Your task to perform on an android device: Do I have any events tomorrow? Image 0: 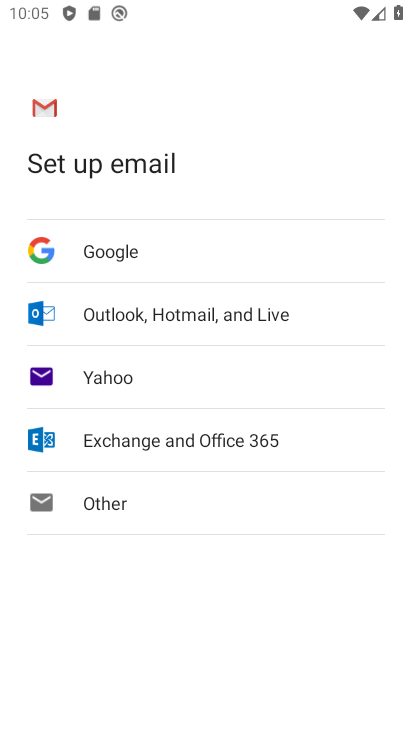
Step 0: press home button
Your task to perform on an android device: Do I have any events tomorrow? Image 1: 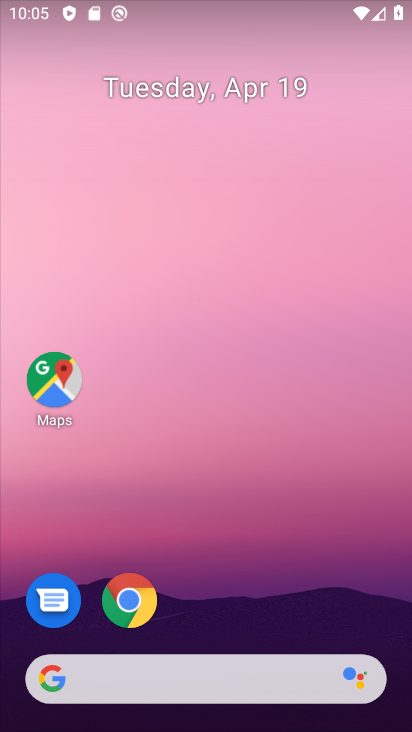
Step 1: drag from (334, 621) to (177, 80)
Your task to perform on an android device: Do I have any events tomorrow? Image 2: 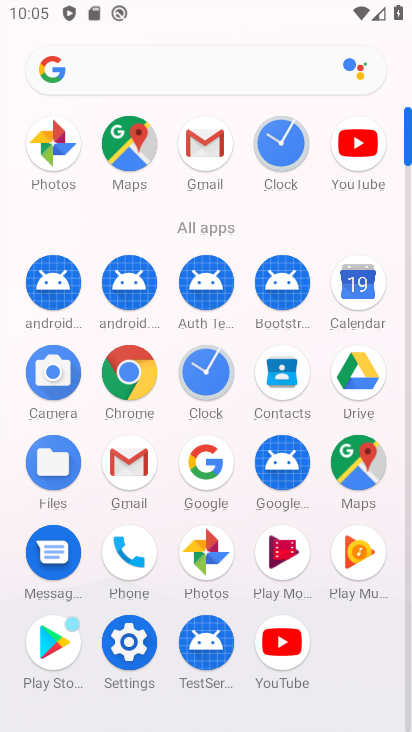
Step 2: click (375, 274)
Your task to perform on an android device: Do I have any events tomorrow? Image 3: 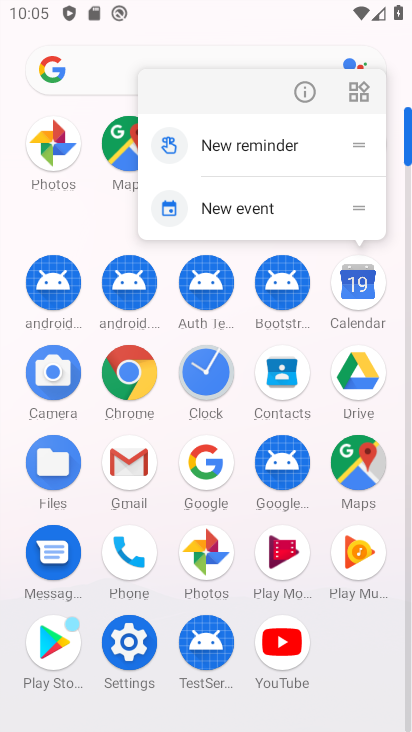
Step 3: click (366, 298)
Your task to perform on an android device: Do I have any events tomorrow? Image 4: 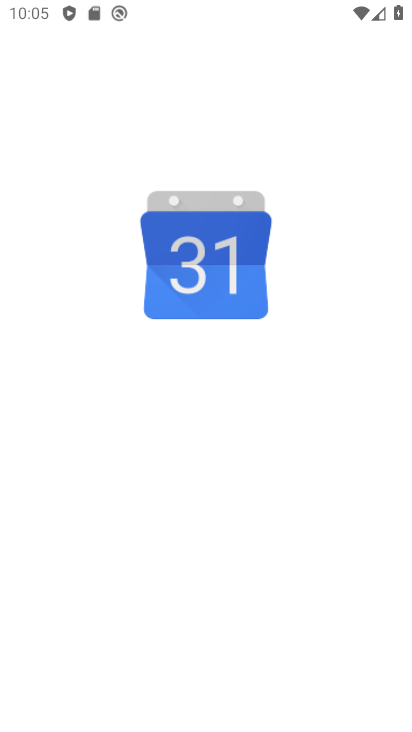
Step 4: click (366, 298)
Your task to perform on an android device: Do I have any events tomorrow? Image 5: 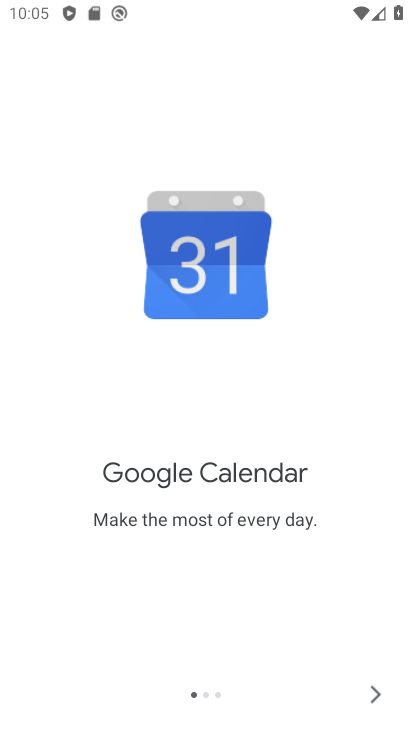
Step 5: click (380, 685)
Your task to perform on an android device: Do I have any events tomorrow? Image 6: 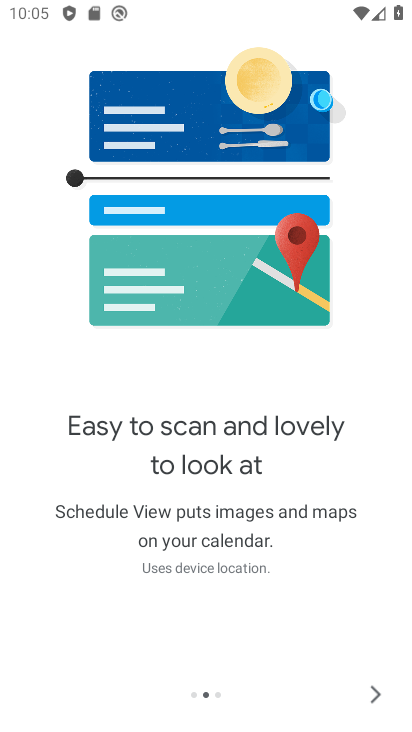
Step 6: click (376, 691)
Your task to perform on an android device: Do I have any events tomorrow? Image 7: 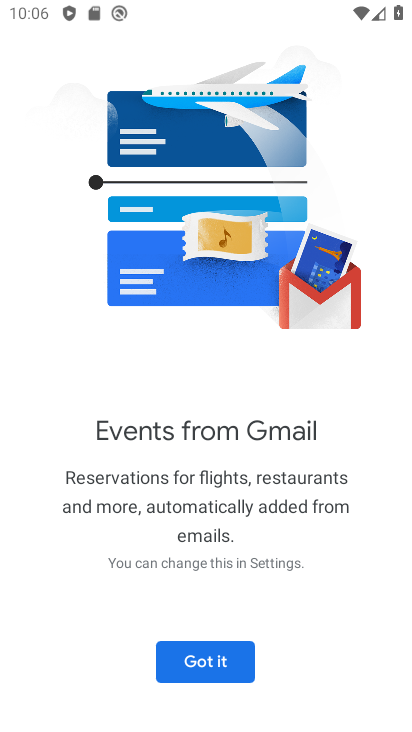
Step 7: click (238, 672)
Your task to perform on an android device: Do I have any events tomorrow? Image 8: 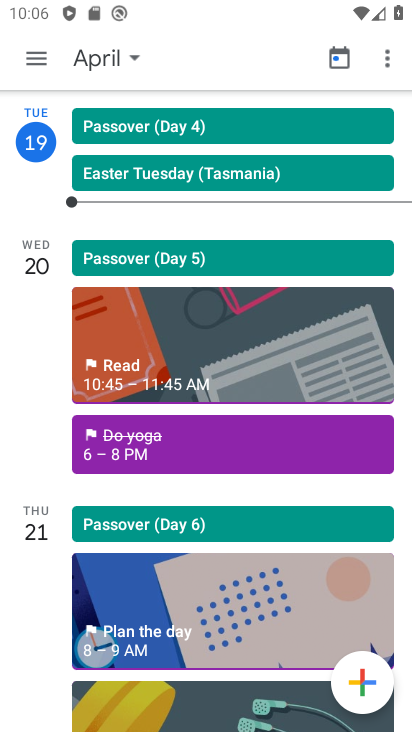
Step 8: click (123, 62)
Your task to perform on an android device: Do I have any events tomorrow? Image 9: 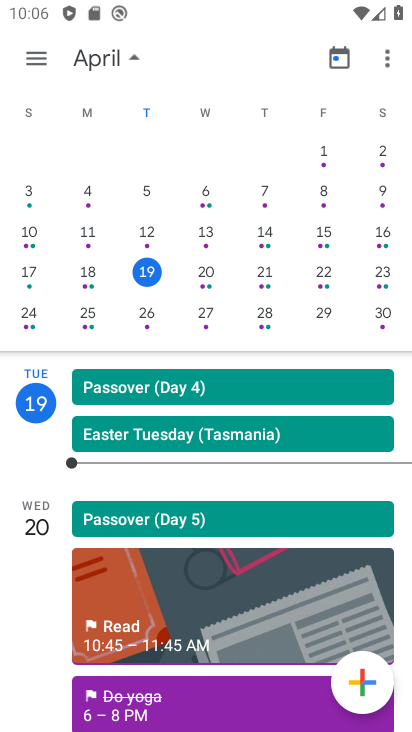
Step 9: click (250, 269)
Your task to perform on an android device: Do I have any events tomorrow? Image 10: 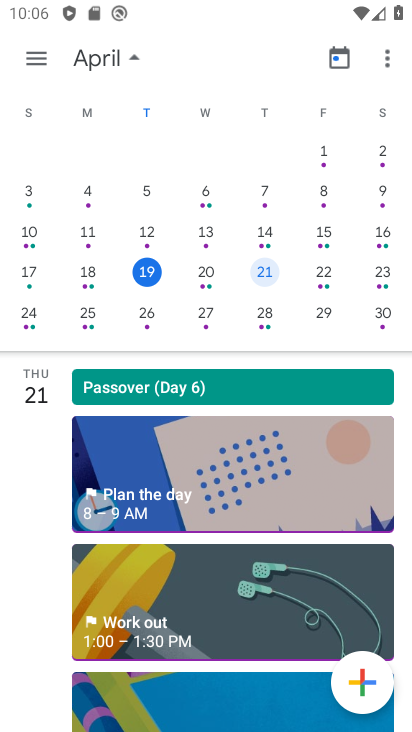
Step 10: task complete